Your task to perform on an android device: add a label to a message in the gmail app Image 0: 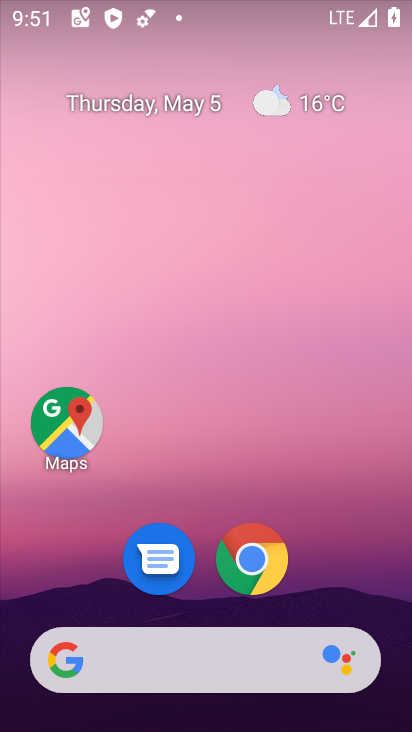
Step 0: drag from (198, 604) to (212, 118)
Your task to perform on an android device: add a label to a message in the gmail app Image 1: 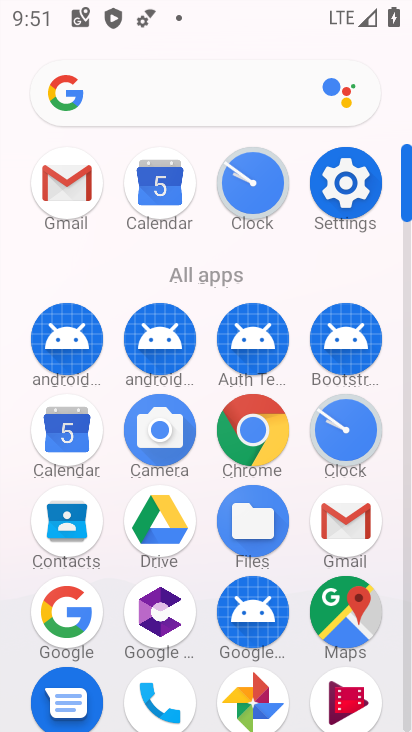
Step 1: click (352, 512)
Your task to perform on an android device: add a label to a message in the gmail app Image 2: 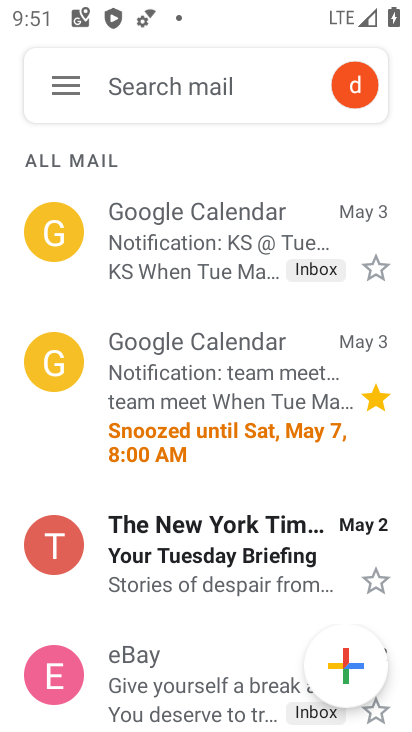
Step 2: click (65, 249)
Your task to perform on an android device: add a label to a message in the gmail app Image 3: 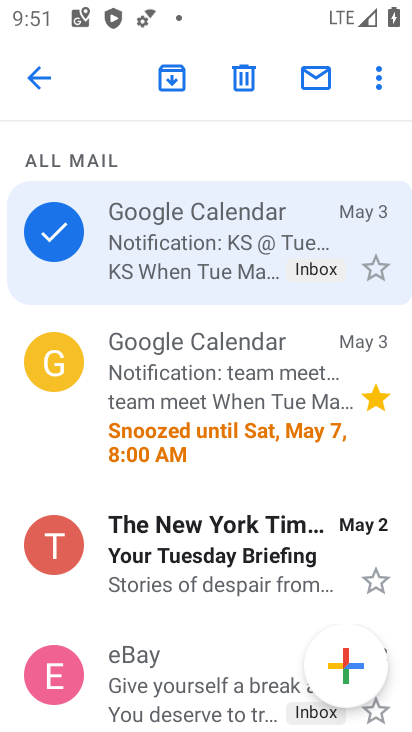
Step 3: click (370, 67)
Your task to perform on an android device: add a label to a message in the gmail app Image 4: 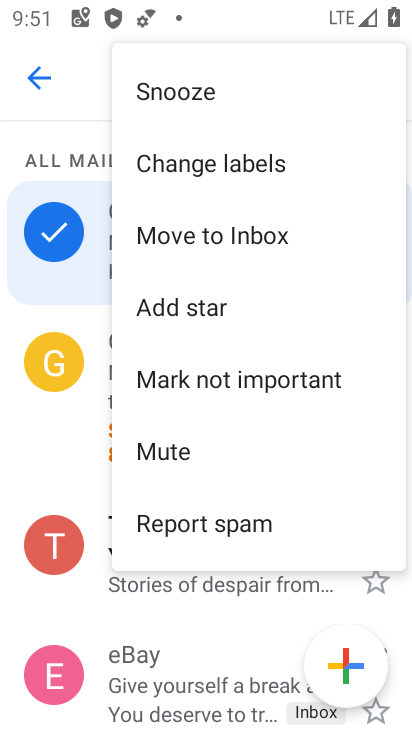
Step 4: click (296, 167)
Your task to perform on an android device: add a label to a message in the gmail app Image 5: 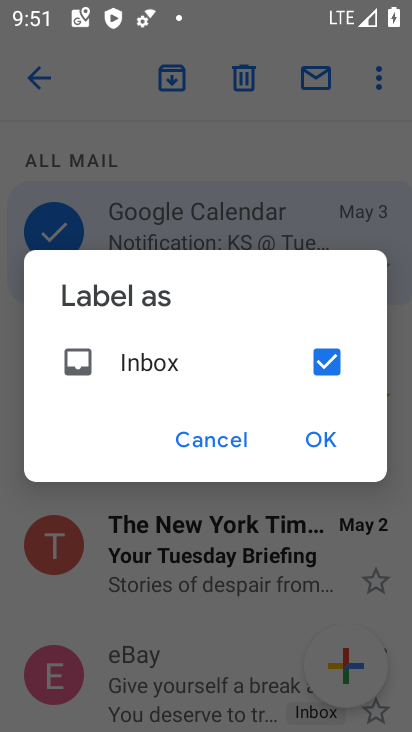
Step 5: click (316, 359)
Your task to perform on an android device: add a label to a message in the gmail app Image 6: 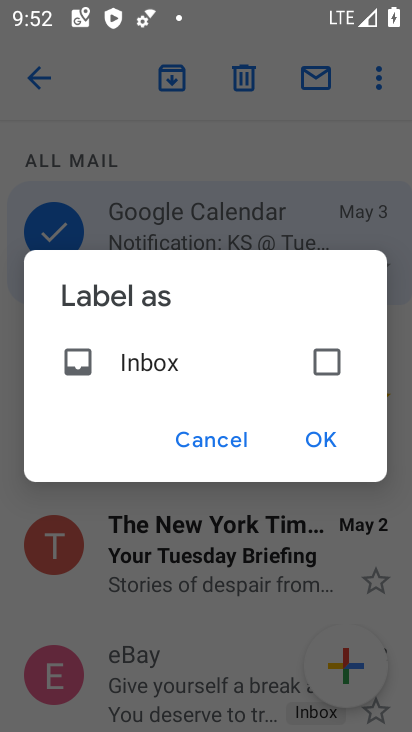
Step 6: click (312, 438)
Your task to perform on an android device: add a label to a message in the gmail app Image 7: 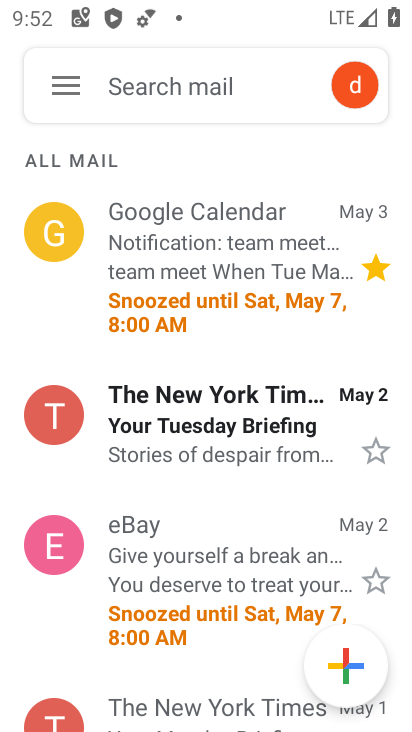
Step 7: task complete